Your task to perform on an android device: open a bookmark in the chrome app Image 0: 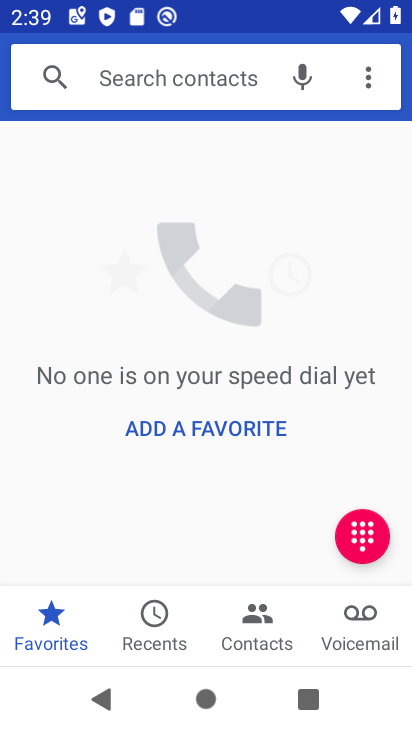
Step 0: press back button
Your task to perform on an android device: open a bookmark in the chrome app Image 1: 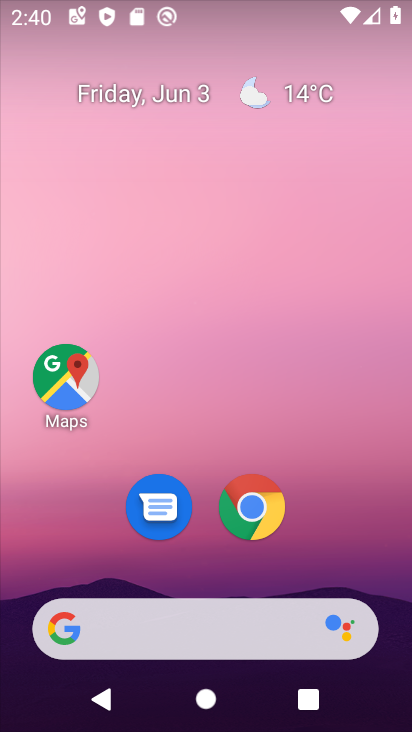
Step 1: click (252, 505)
Your task to perform on an android device: open a bookmark in the chrome app Image 2: 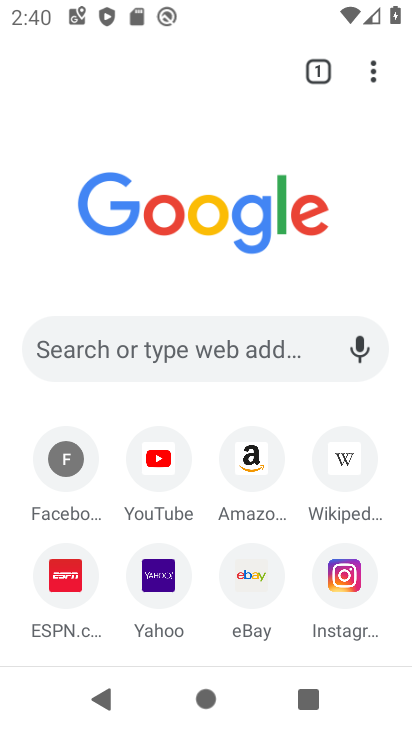
Step 2: click (373, 71)
Your task to perform on an android device: open a bookmark in the chrome app Image 3: 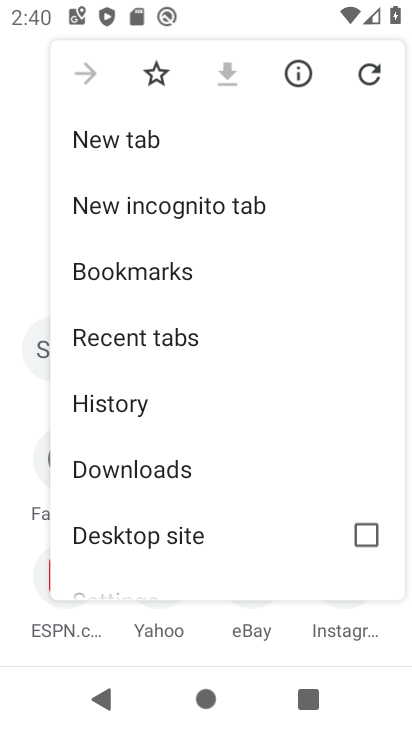
Step 3: click (172, 276)
Your task to perform on an android device: open a bookmark in the chrome app Image 4: 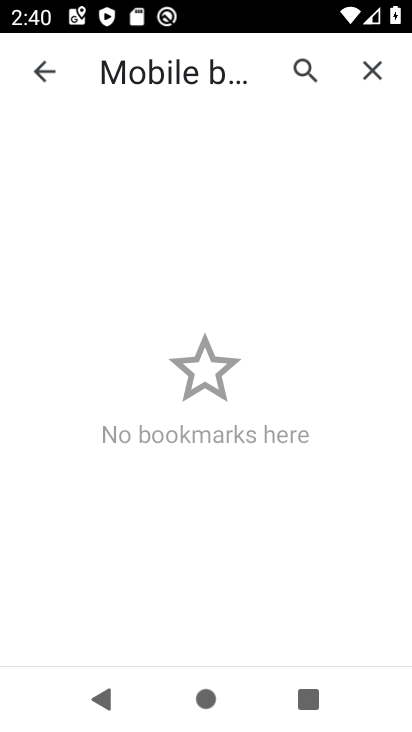
Step 4: task complete